Your task to perform on an android device: turn off translation in the chrome app Image 0: 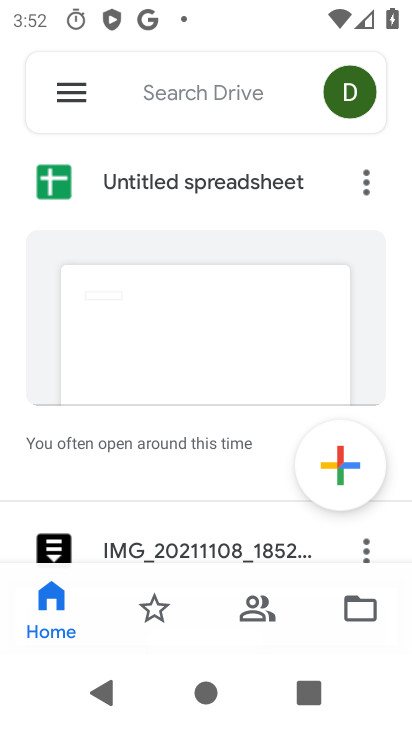
Step 0: press home button
Your task to perform on an android device: turn off translation in the chrome app Image 1: 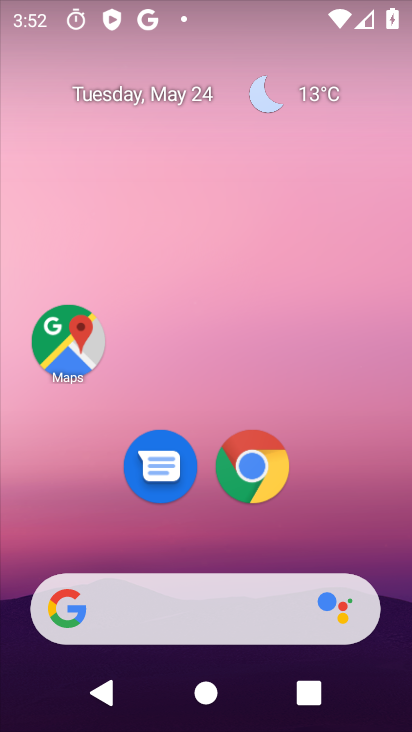
Step 1: click (249, 468)
Your task to perform on an android device: turn off translation in the chrome app Image 2: 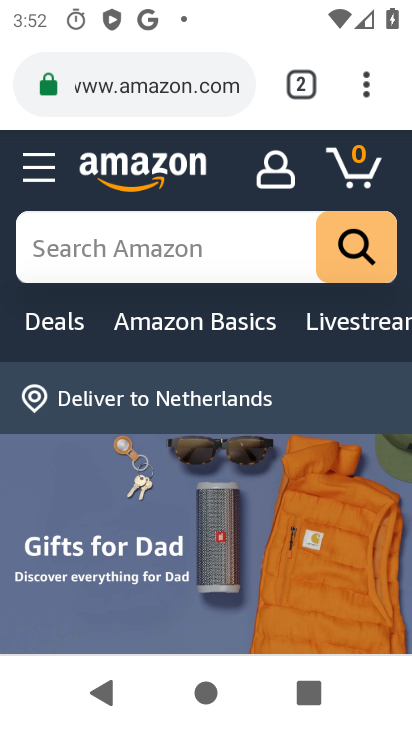
Step 2: click (367, 75)
Your task to perform on an android device: turn off translation in the chrome app Image 3: 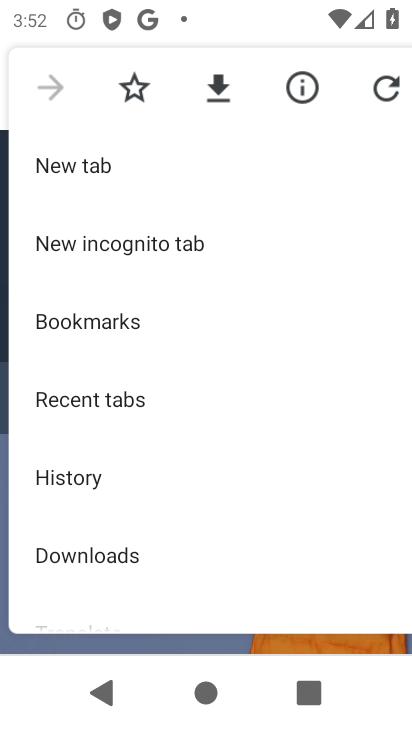
Step 3: drag from (173, 422) to (179, 60)
Your task to perform on an android device: turn off translation in the chrome app Image 4: 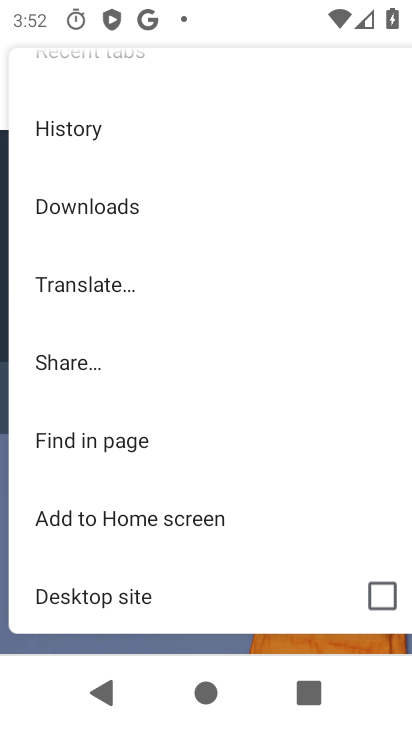
Step 4: drag from (142, 490) to (225, 165)
Your task to perform on an android device: turn off translation in the chrome app Image 5: 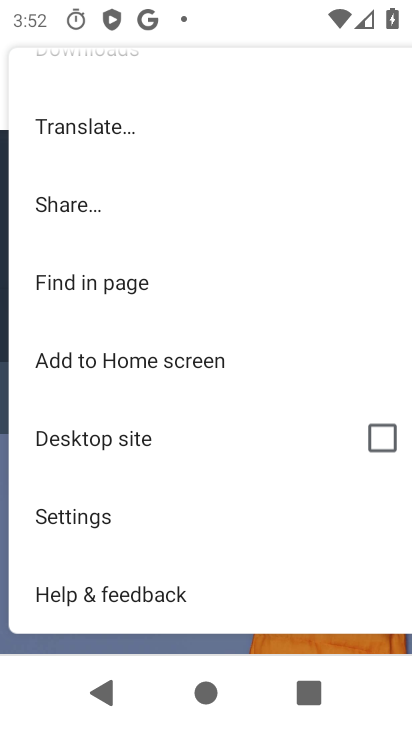
Step 5: click (88, 519)
Your task to perform on an android device: turn off translation in the chrome app Image 6: 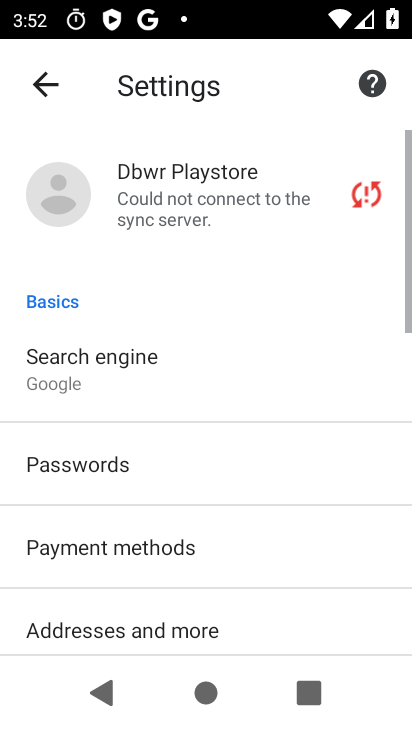
Step 6: drag from (183, 589) to (196, 122)
Your task to perform on an android device: turn off translation in the chrome app Image 7: 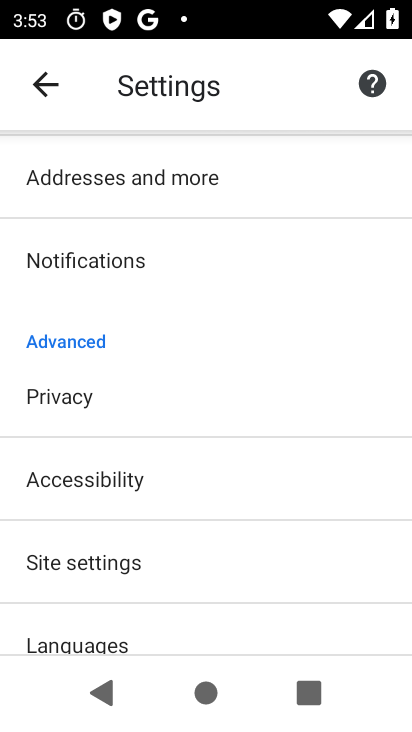
Step 7: drag from (139, 602) to (198, 331)
Your task to perform on an android device: turn off translation in the chrome app Image 8: 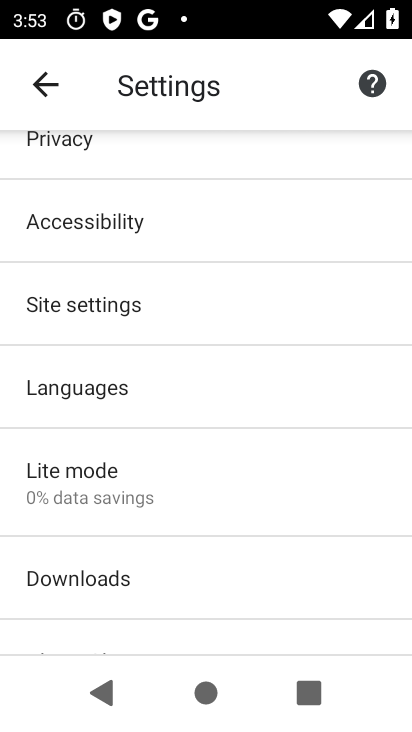
Step 8: click (96, 397)
Your task to perform on an android device: turn off translation in the chrome app Image 9: 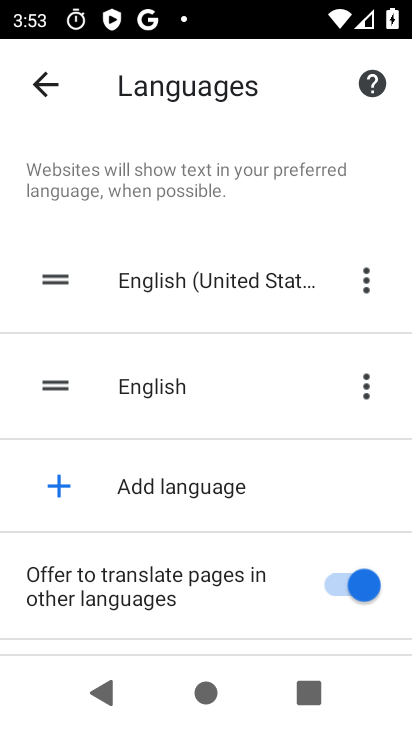
Step 9: click (346, 581)
Your task to perform on an android device: turn off translation in the chrome app Image 10: 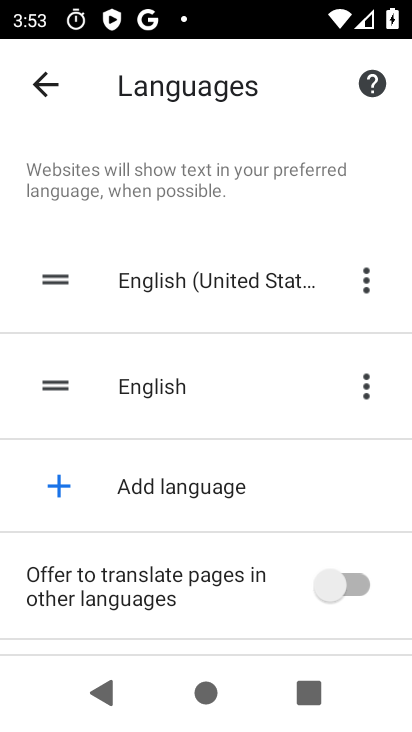
Step 10: task complete